Your task to perform on an android device: change the upload size in google photos Image 0: 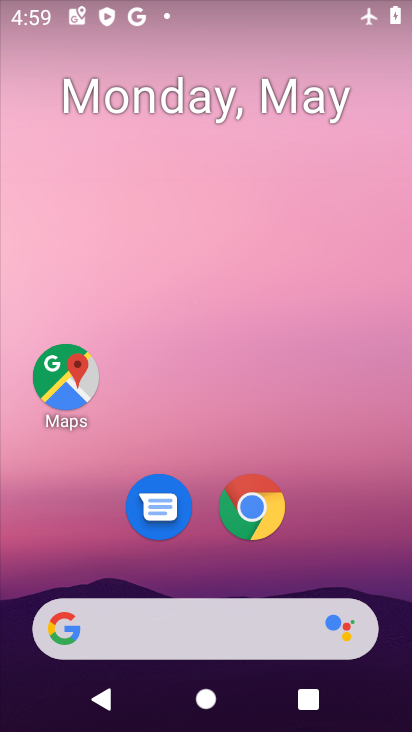
Step 0: drag from (409, 552) to (380, 93)
Your task to perform on an android device: change the upload size in google photos Image 1: 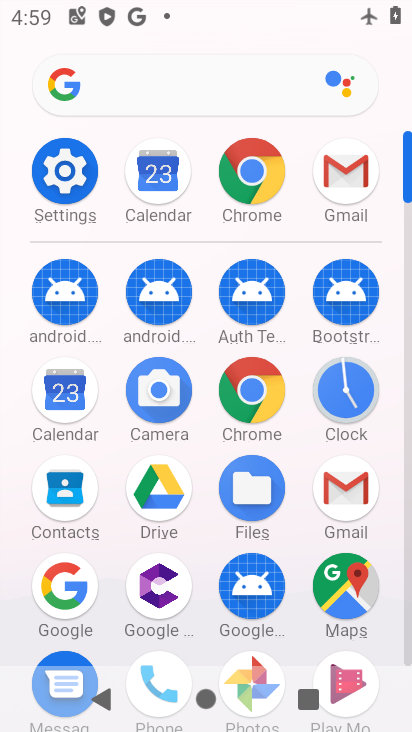
Step 1: drag from (391, 610) to (380, 288)
Your task to perform on an android device: change the upload size in google photos Image 2: 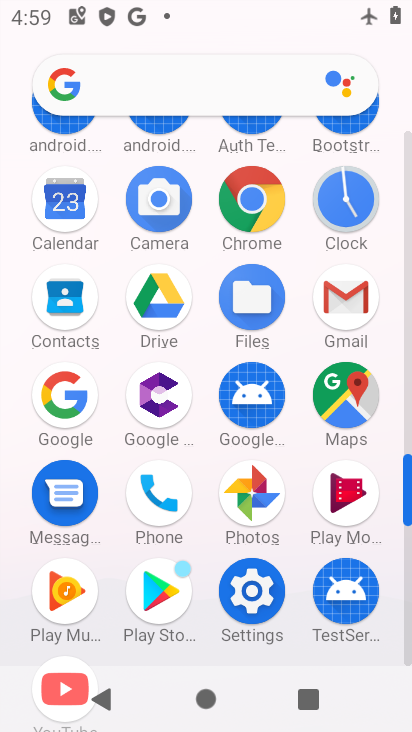
Step 2: click (263, 507)
Your task to perform on an android device: change the upload size in google photos Image 3: 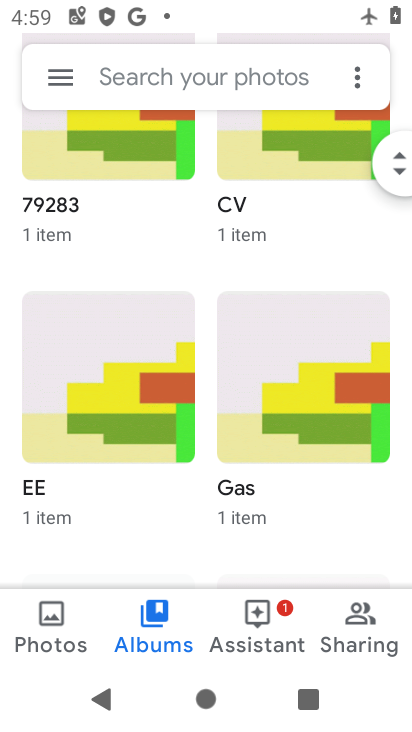
Step 3: click (48, 82)
Your task to perform on an android device: change the upload size in google photos Image 4: 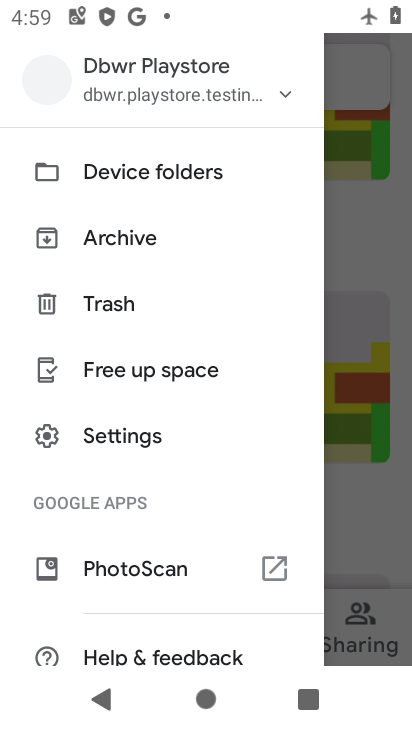
Step 4: drag from (147, 491) to (159, 114)
Your task to perform on an android device: change the upload size in google photos Image 5: 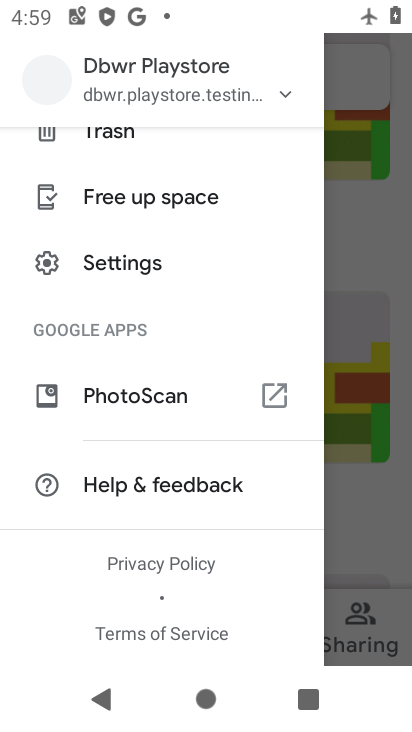
Step 5: click (113, 288)
Your task to perform on an android device: change the upload size in google photos Image 6: 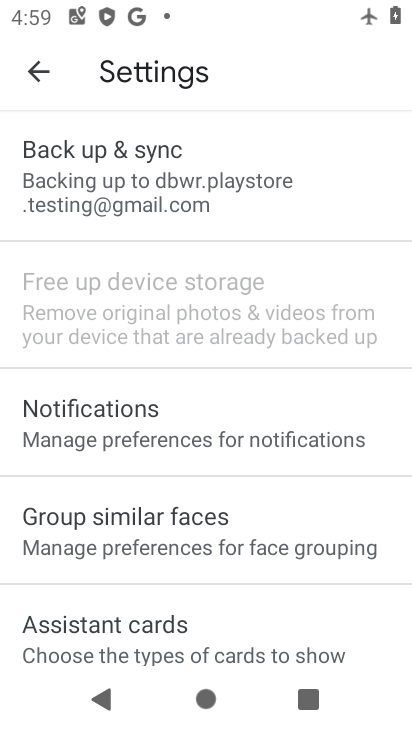
Step 6: drag from (200, 620) to (169, 191)
Your task to perform on an android device: change the upload size in google photos Image 7: 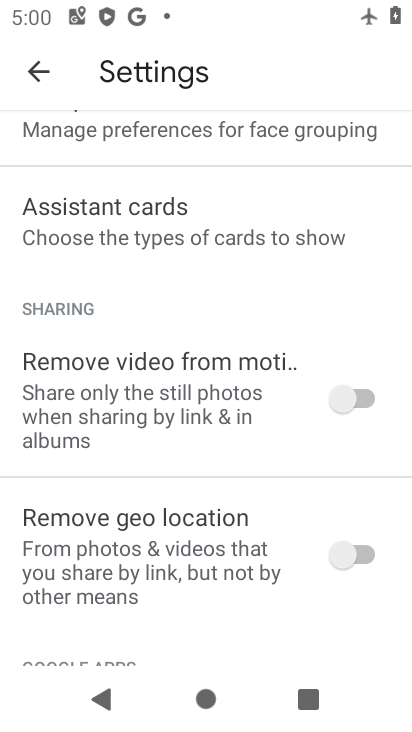
Step 7: drag from (179, 219) to (200, 609)
Your task to perform on an android device: change the upload size in google photos Image 8: 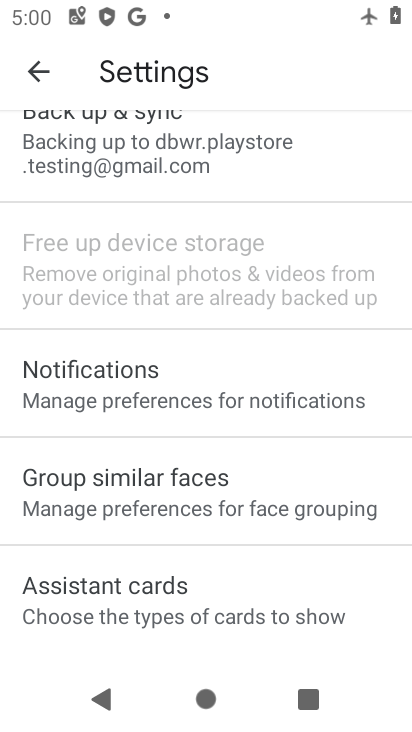
Step 8: drag from (98, 151) to (103, 546)
Your task to perform on an android device: change the upload size in google photos Image 9: 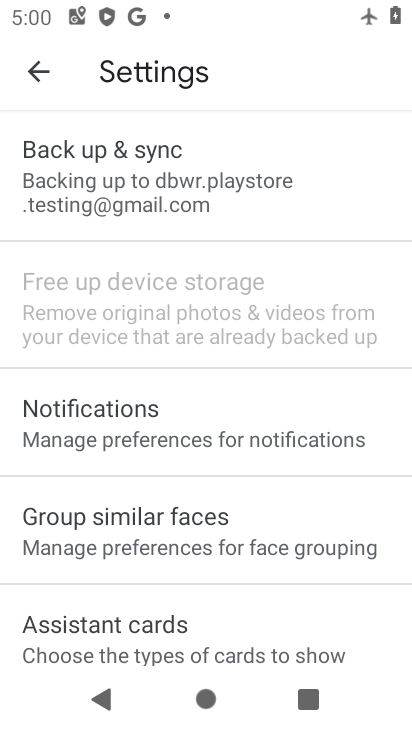
Step 9: click (91, 206)
Your task to perform on an android device: change the upload size in google photos Image 10: 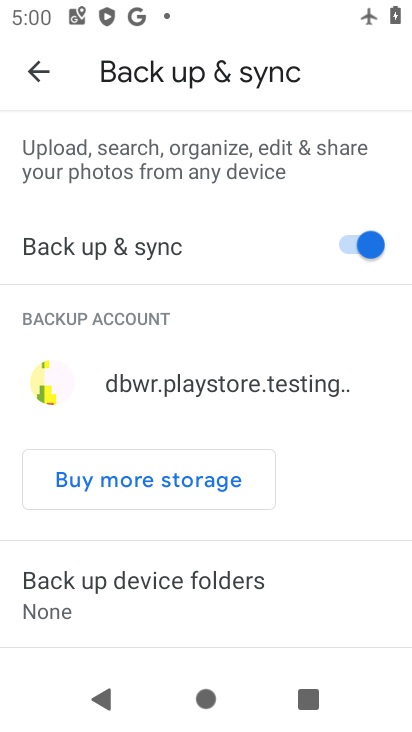
Step 10: task complete